Your task to perform on an android device: open app "DuckDuckGo Privacy Browser" Image 0: 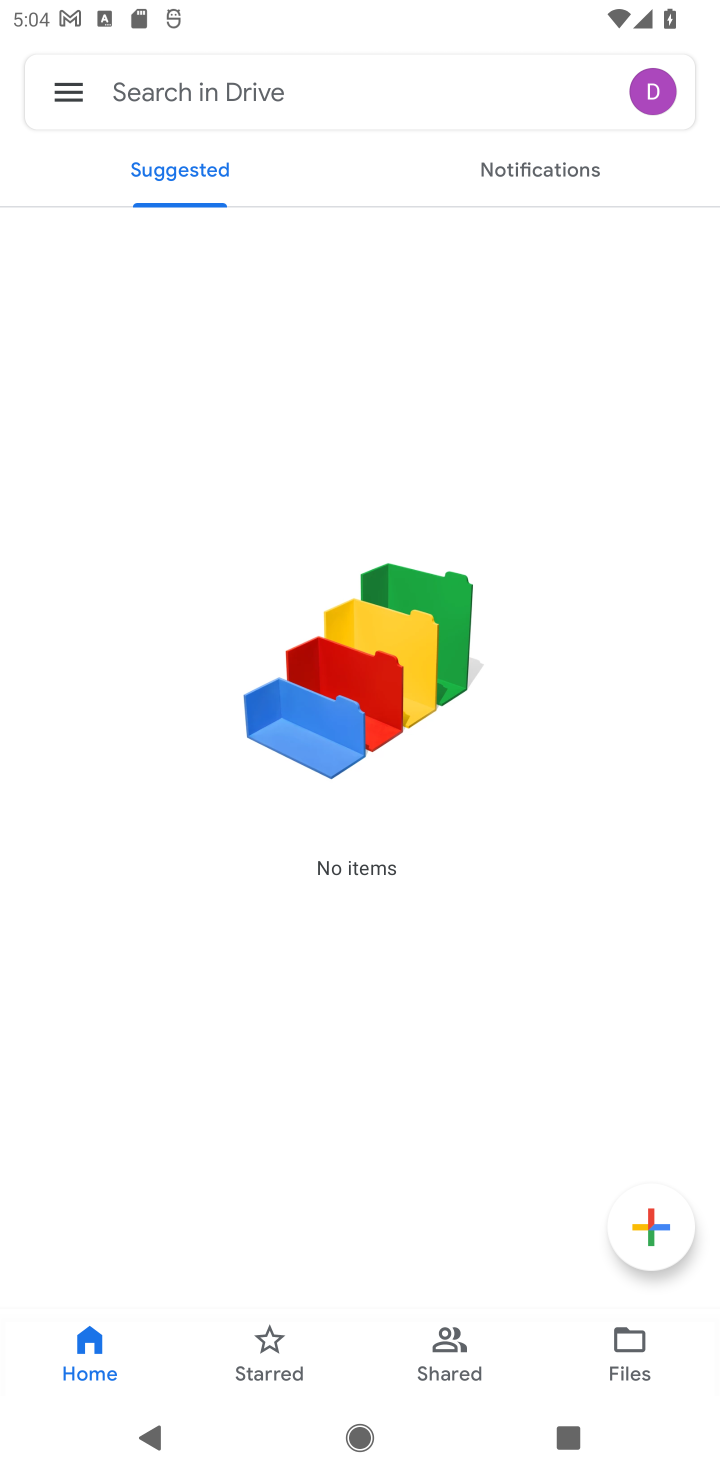
Step 0: press home button
Your task to perform on an android device: open app "DuckDuckGo Privacy Browser" Image 1: 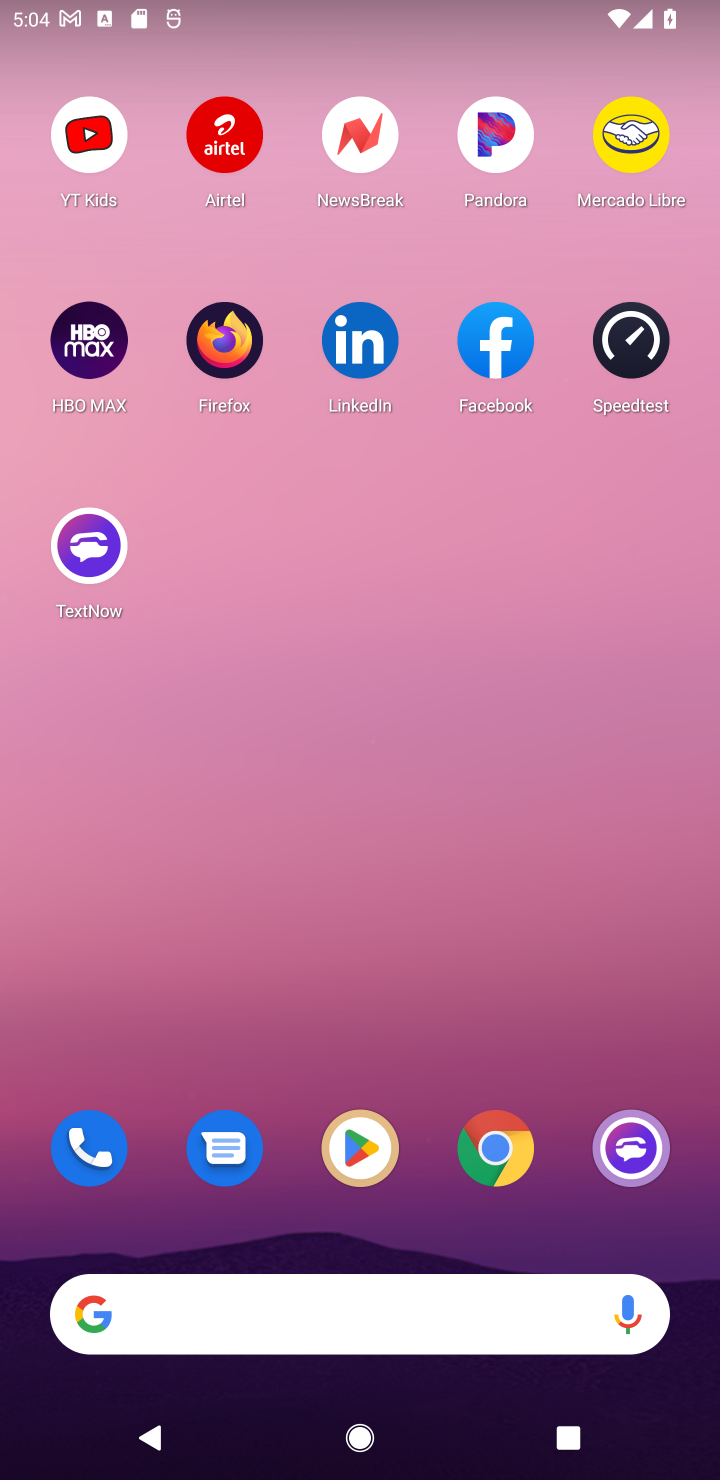
Step 1: click (355, 1157)
Your task to perform on an android device: open app "DuckDuckGo Privacy Browser" Image 2: 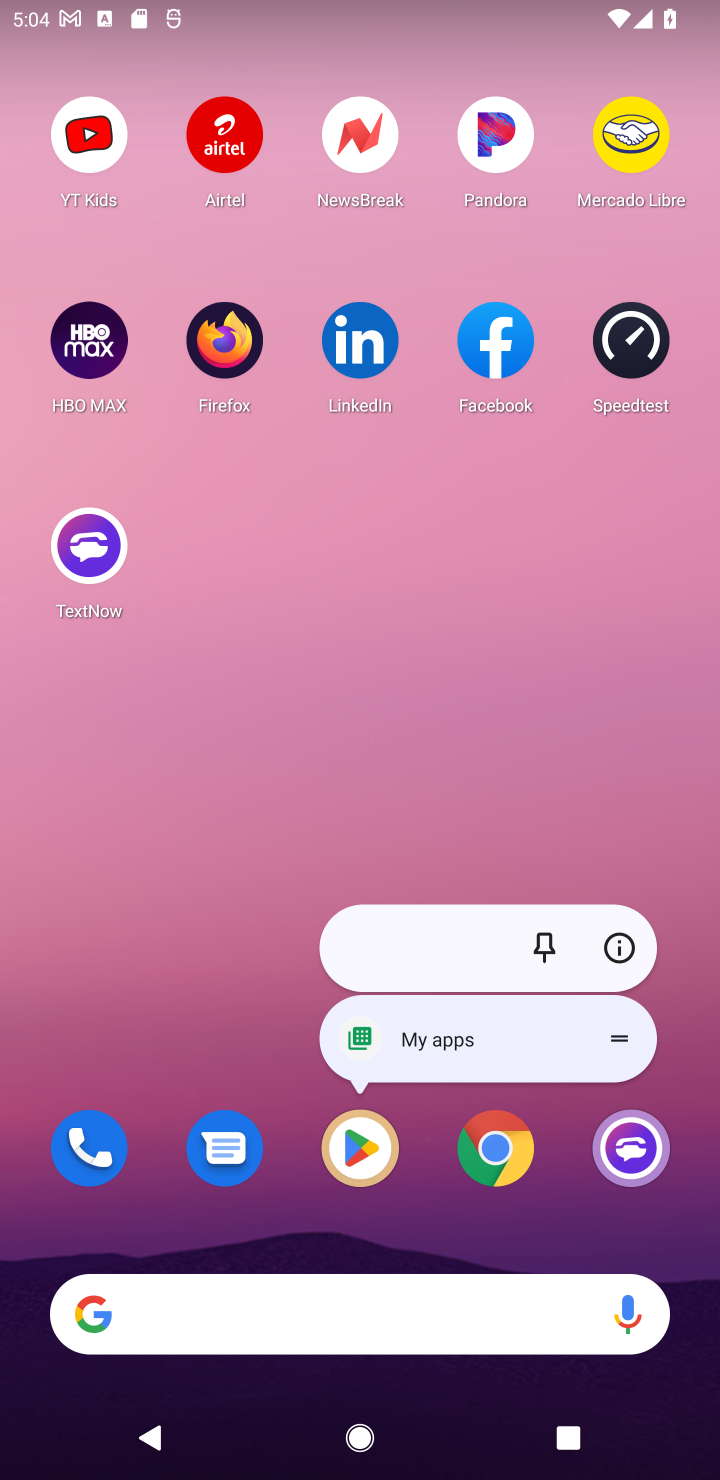
Step 2: click (355, 1157)
Your task to perform on an android device: open app "DuckDuckGo Privacy Browser" Image 3: 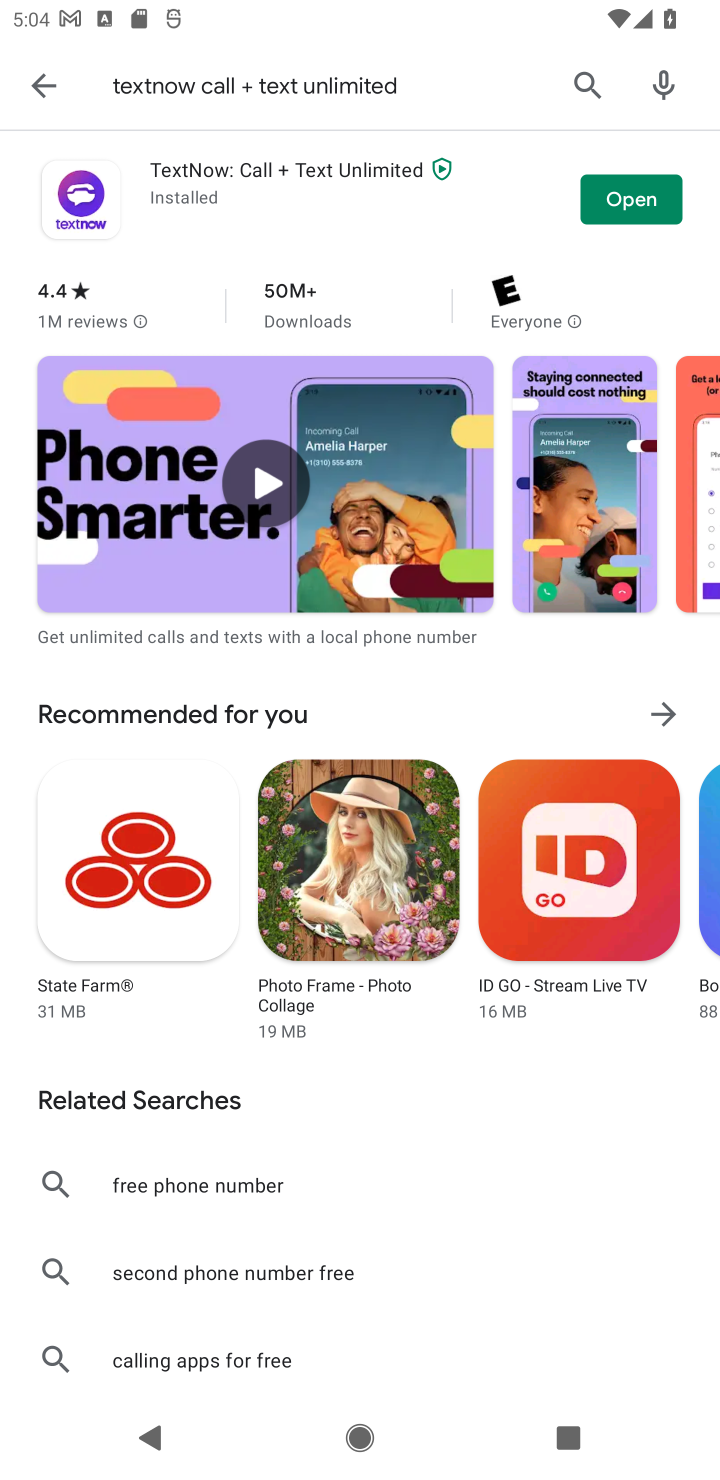
Step 3: click (581, 76)
Your task to perform on an android device: open app "DuckDuckGo Privacy Browser" Image 4: 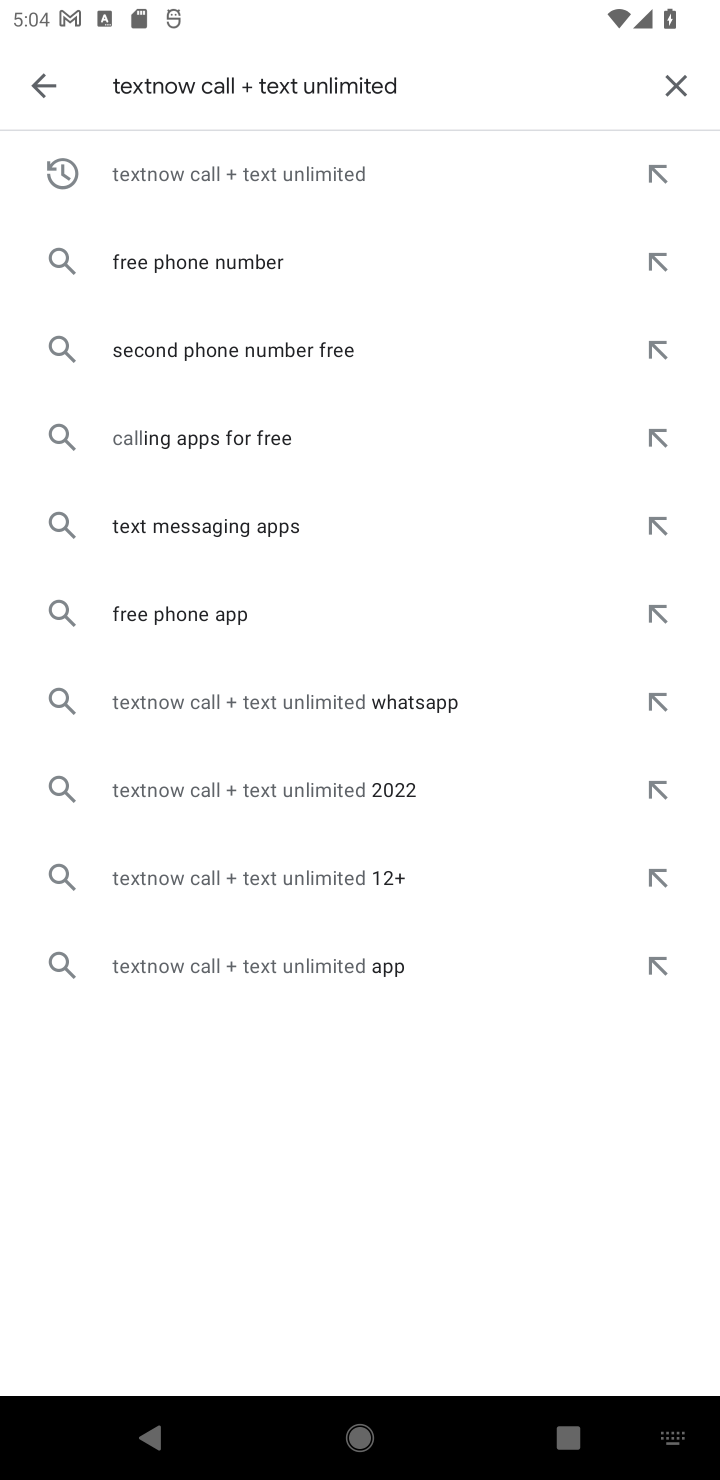
Step 4: click (681, 67)
Your task to perform on an android device: open app "DuckDuckGo Privacy Browser" Image 5: 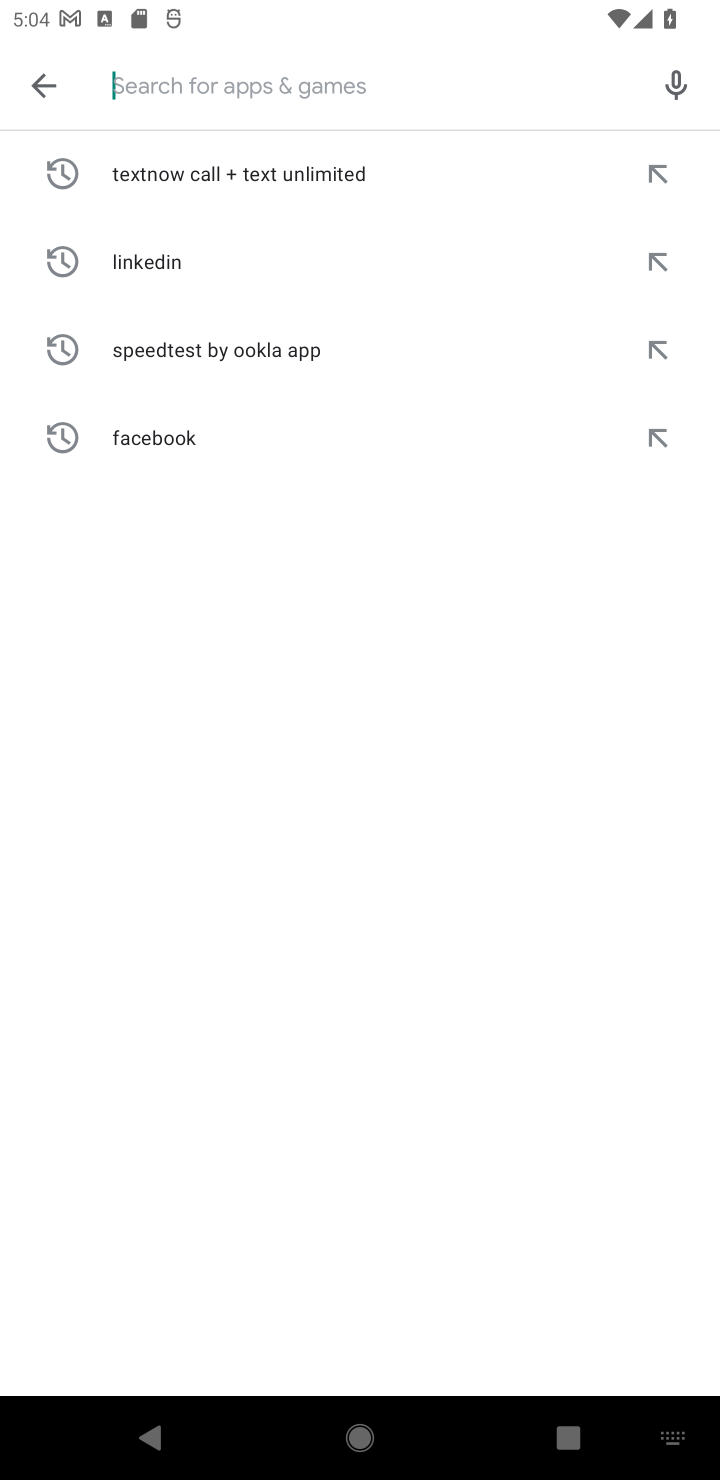
Step 5: type "DuckDuckGo Privacy Browser"
Your task to perform on an android device: open app "DuckDuckGo Privacy Browser" Image 6: 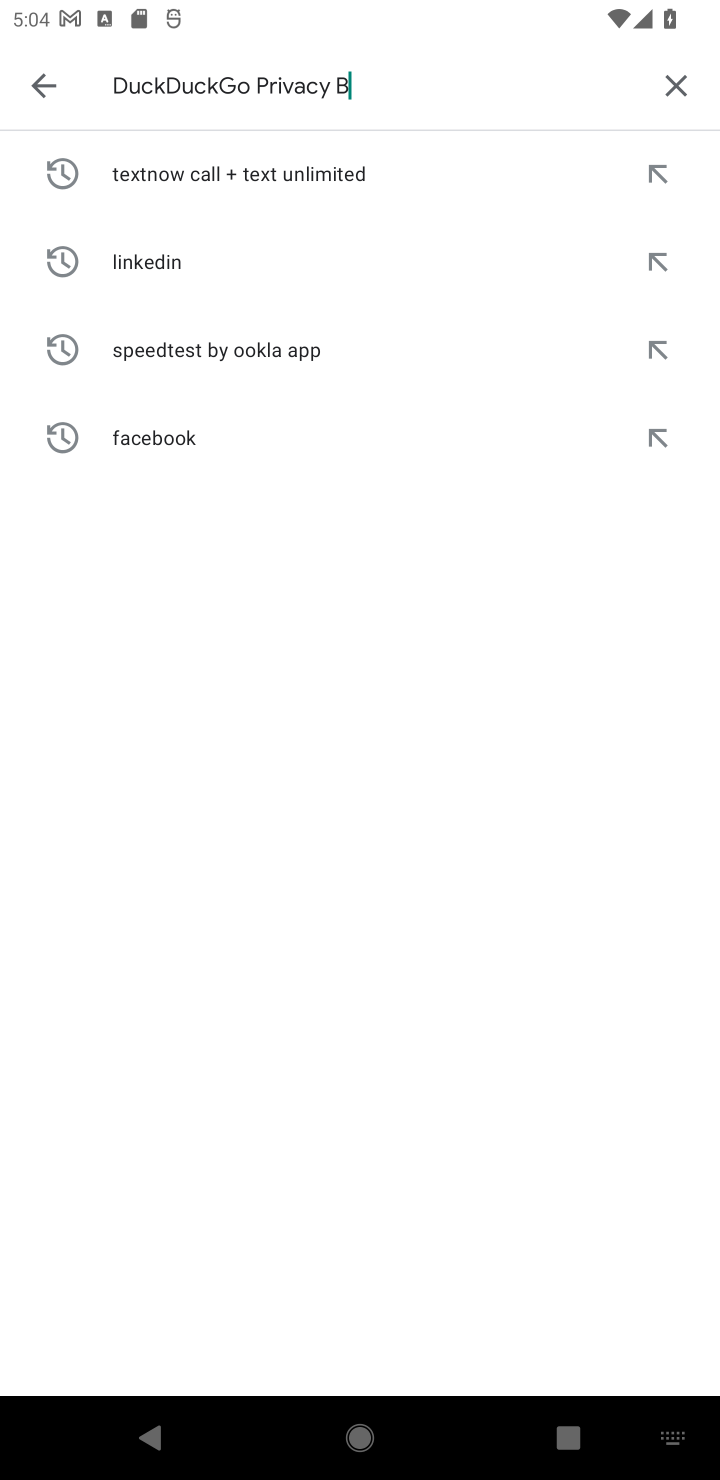
Step 6: type ""
Your task to perform on an android device: open app "DuckDuckGo Privacy Browser" Image 7: 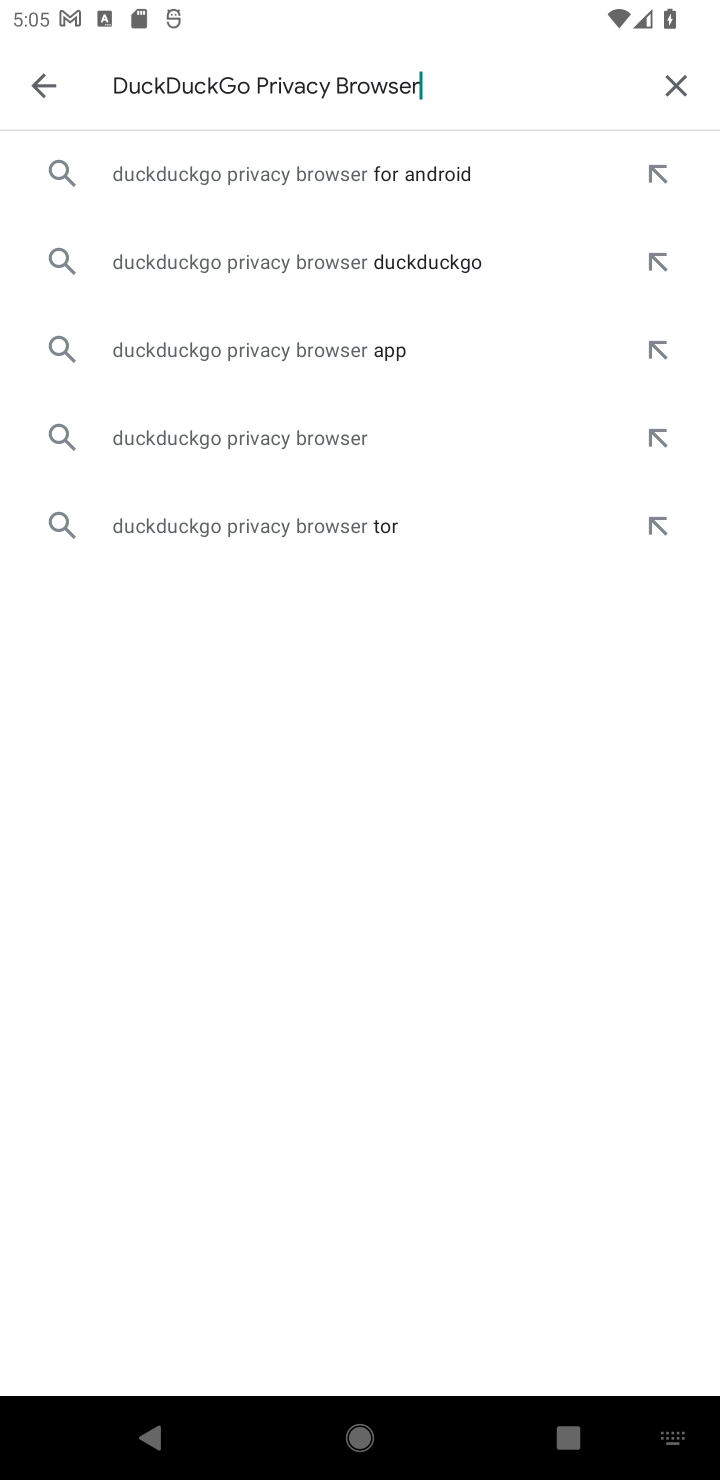
Step 7: click (265, 437)
Your task to perform on an android device: open app "DuckDuckGo Privacy Browser" Image 8: 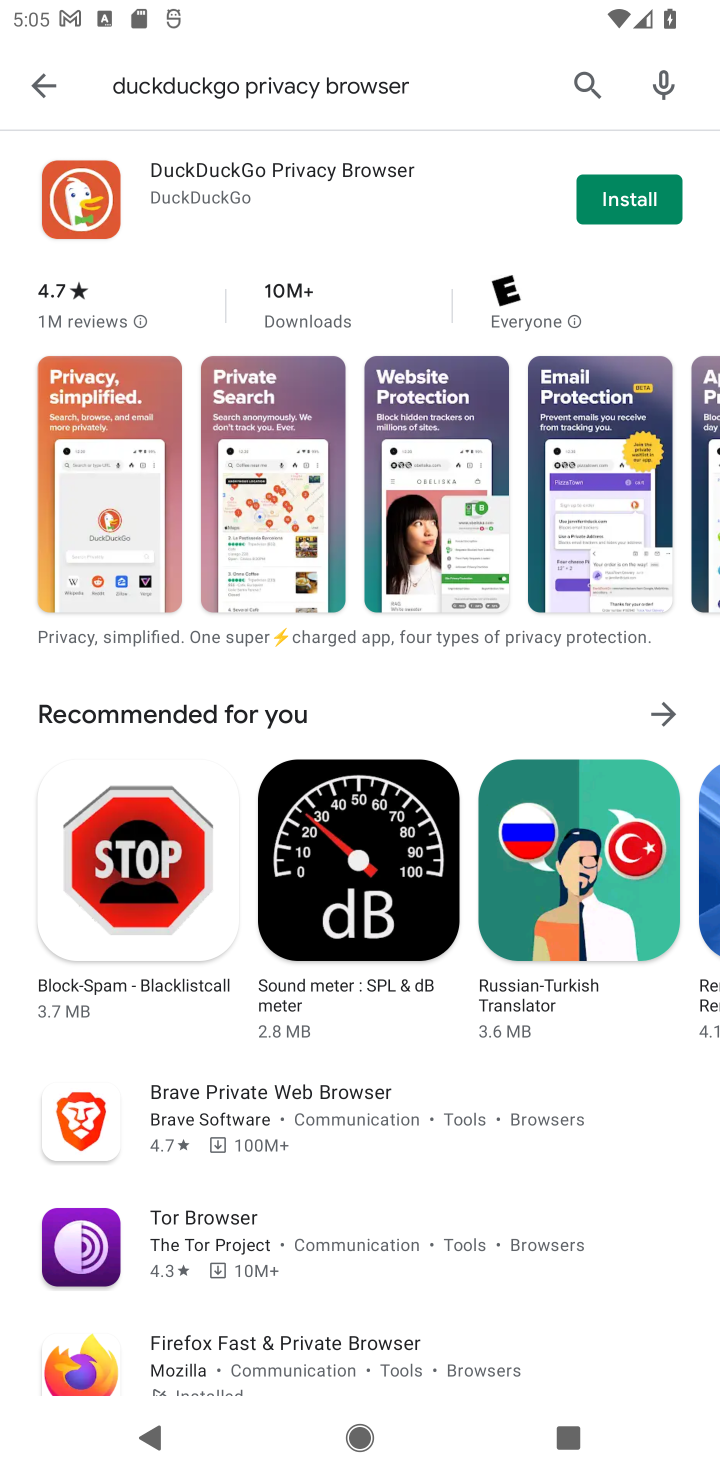
Step 8: task complete